Your task to perform on an android device: Open sound settings Image 0: 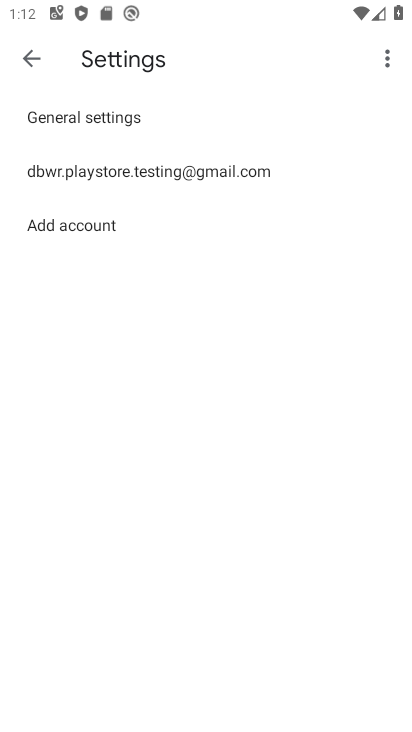
Step 0: press back button
Your task to perform on an android device: Open sound settings Image 1: 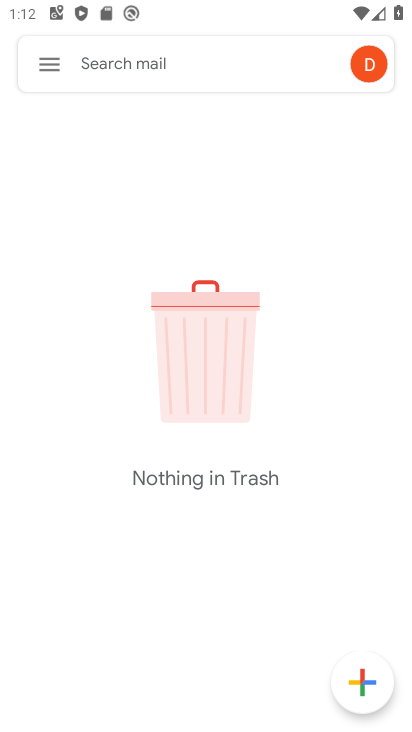
Step 1: press back button
Your task to perform on an android device: Open sound settings Image 2: 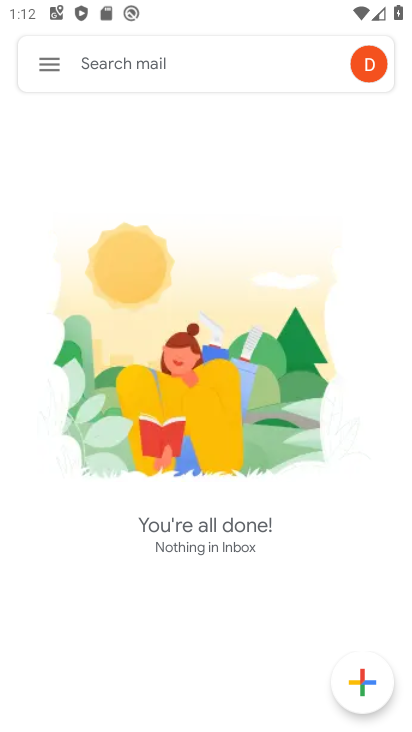
Step 2: press back button
Your task to perform on an android device: Open sound settings Image 3: 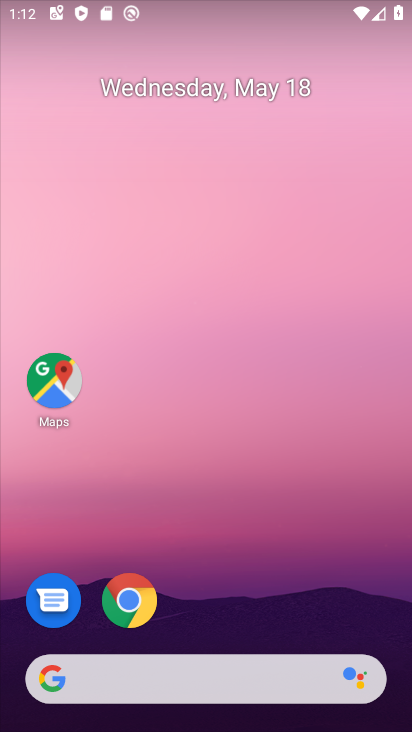
Step 3: drag from (261, 542) to (215, 132)
Your task to perform on an android device: Open sound settings Image 4: 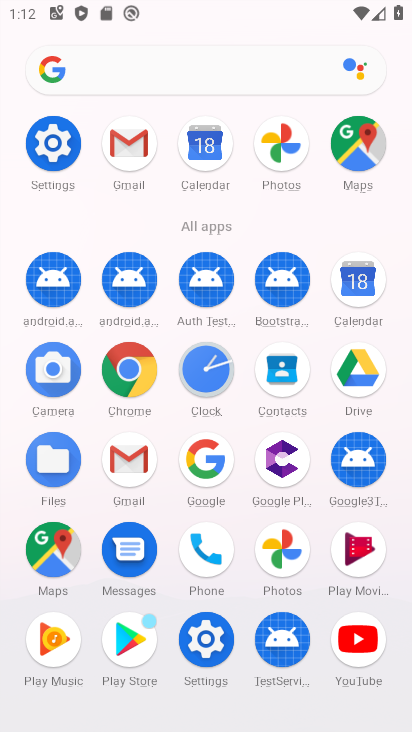
Step 4: click (53, 146)
Your task to perform on an android device: Open sound settings Image 5: 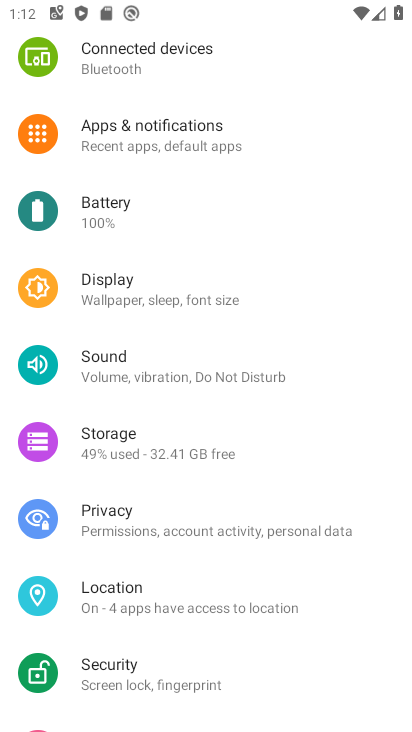
Step 5: click (149, 371)
Your task to perform on an android device: Open sound settings Image 6: 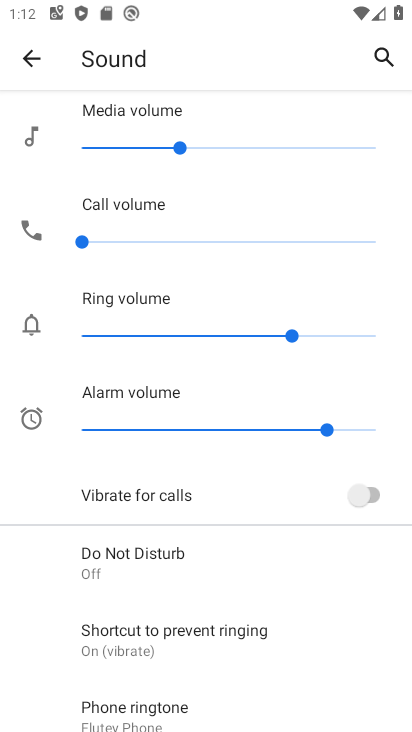
Step 6: task complete